Your task to perform on an android device: delete location history Image 0: 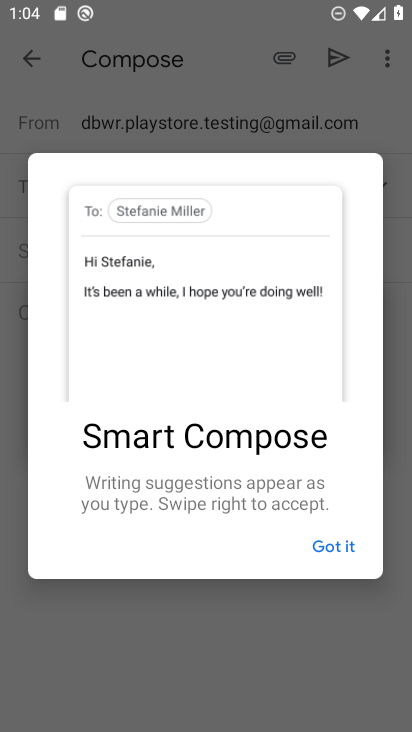
Step 0: press home button
Your task to perform on an android device: delete location history Image 1: 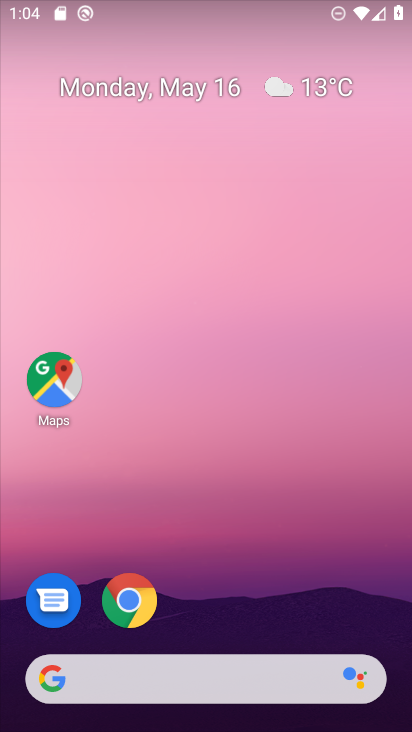
Step 1: click (53, 378)
Your task to perform on an android device: delete location history Image 2: 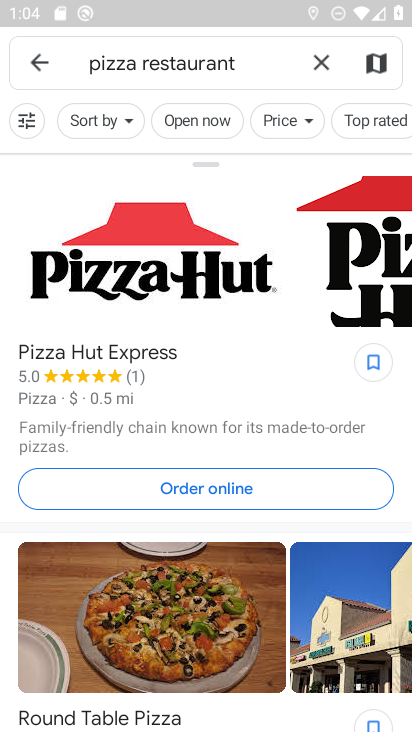
Step 2: click (37, 58)
Your task to perform on an android device: delete location history Image 3: 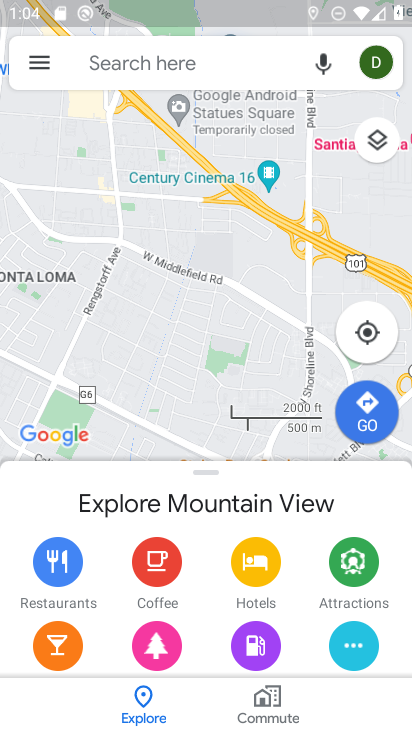
Step 3: click (37, 67)
Your task to perform on an android device: delete location history Image 4: 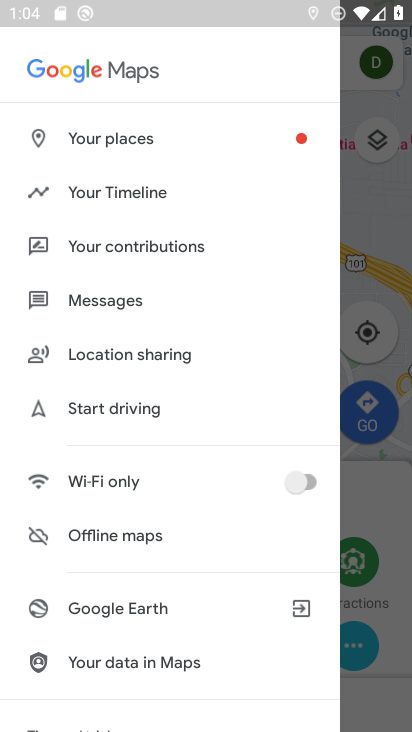
Step 4: click (166, 189)
Your task to perform on an android device: delete location history Image 5: 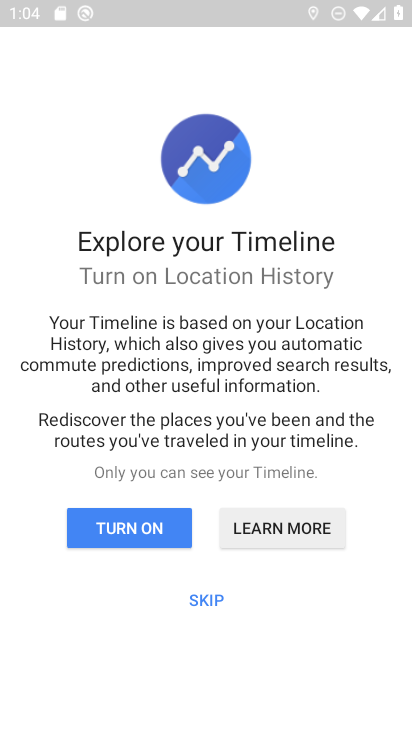
Step 5: click (133, 526)
Your task to perform on an android device: delete location history Image 6: 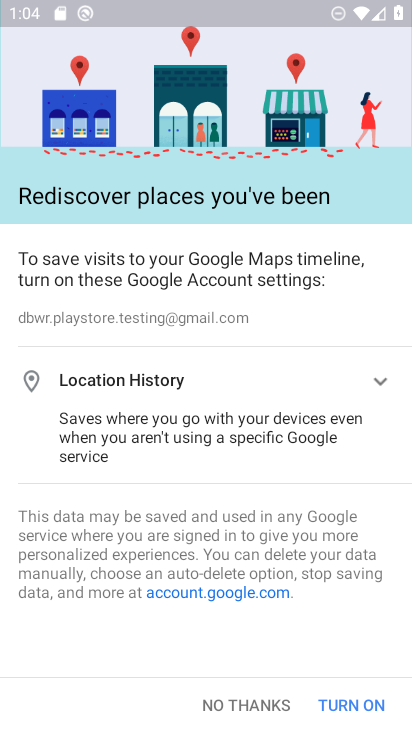
Step 6: click (356, 711)
Your task to perform on an android device: delete location history Image 7: 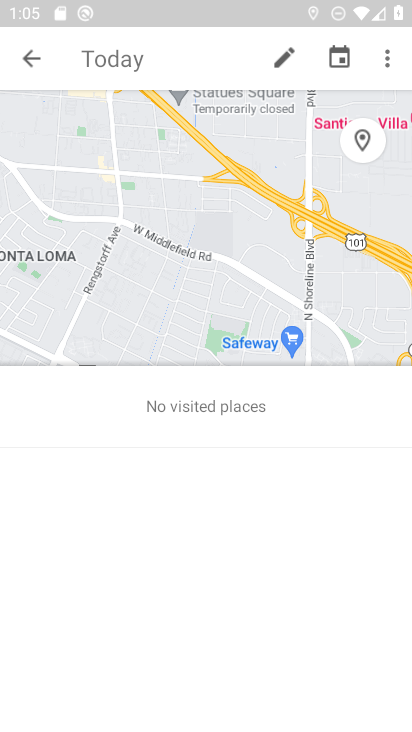
Step 7: click (389, 56)
Your task to perform on an android device: delete location history Image 8: 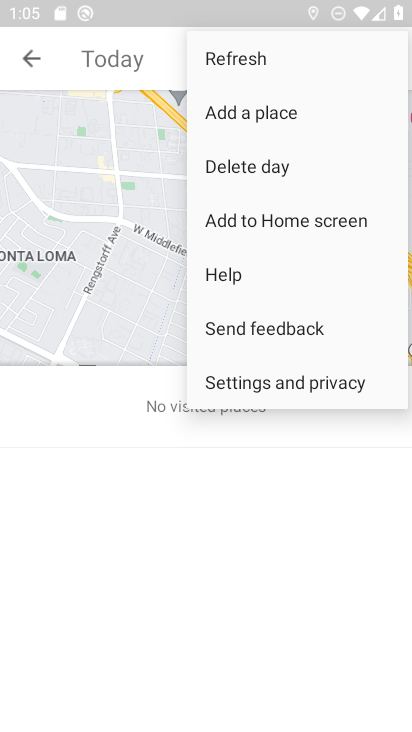
Step 8: click (312, 383)
Your task to perform on an android device: delete location history Image 9: 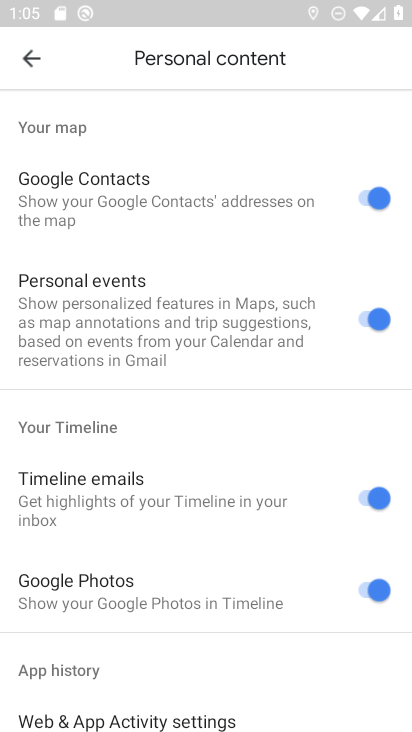
Step 9: drag from (255, 648) to (268, 9)
Your task to perform on an android device: delete location history Image 10: 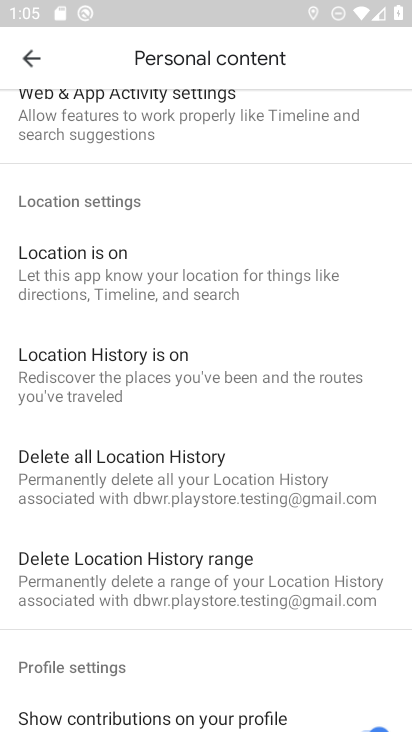
Step 10: click (195, 475)
Your task to perform on an android device: delete location history Image 11: 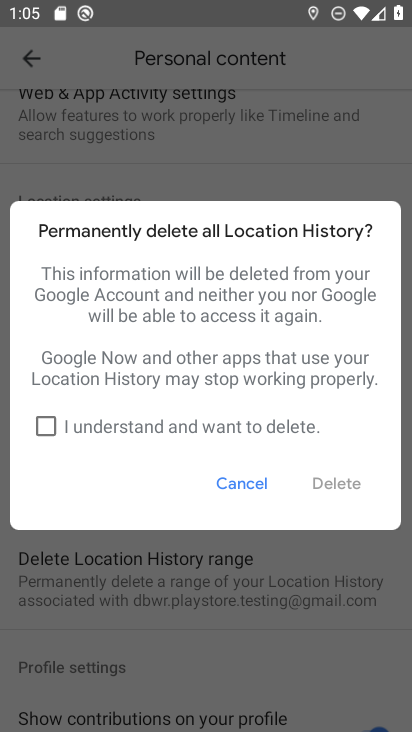
Step 11: click (52, 419)
Your task to perform on an android device: delete location history Image 12: 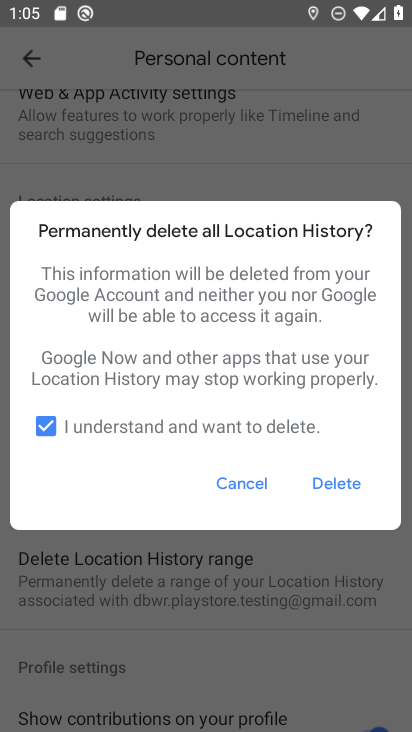
Step 12: click (339, 478)
Your task to perform on an android device: delete location history Image 13: 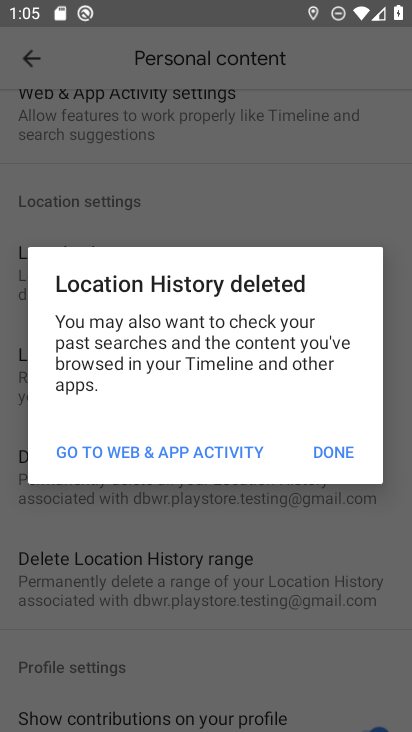
Step 13: click (324, 454)
Your task to perform on an android device: delete location history Image 14: 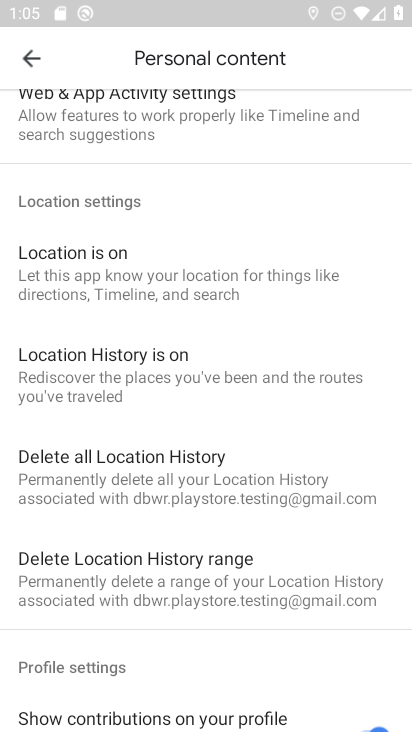
Step 14: task complete